Your task to perform on an android device: Search for vegetarian restaurants on Maps Image 0: 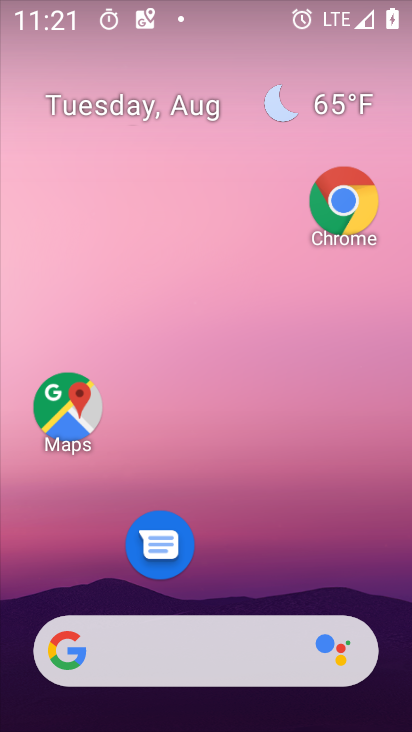
Step 0: drag from (269, 654) to (246, 65)
Your task to perform on an android device: Search for vegetarian restaurants on Maps Image 1: 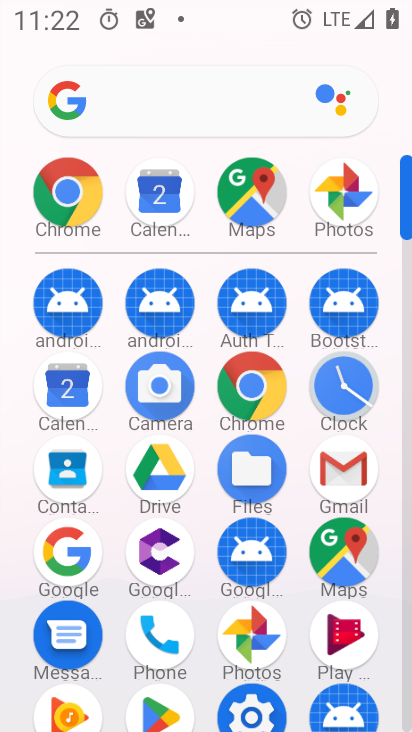
Step 1: click (262, 202)
Your task to perform on an android device: Search for vegetarian restaurants on Maps Image 2: 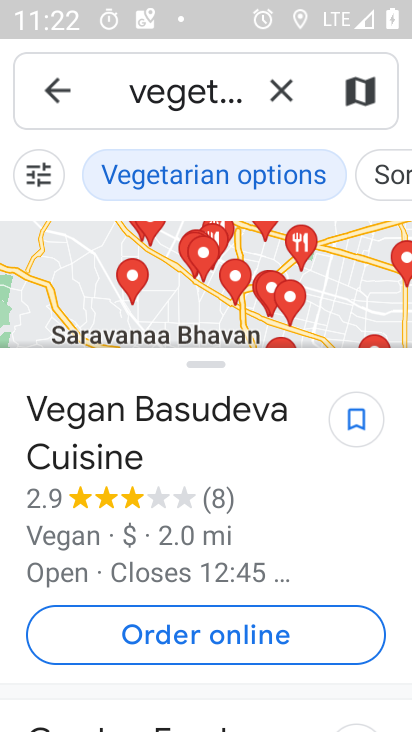
Step 2: task complete